Your task to perform on an android device: turn on translation in the chrome app Image 0: 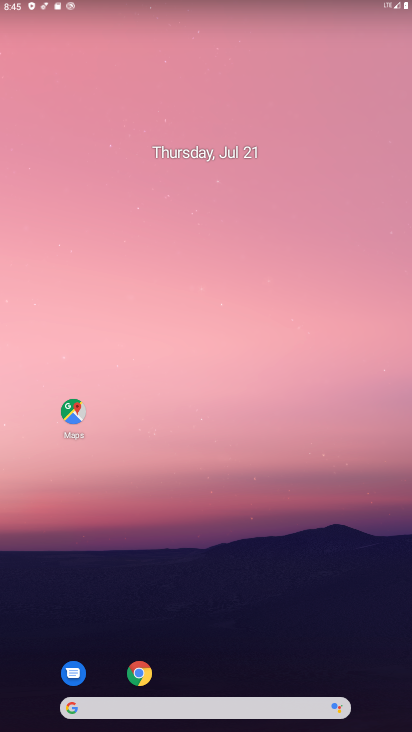
Step 0: click (153, 677)
Your task to perform on an android device: turn on translation in the chrome app Image 1: 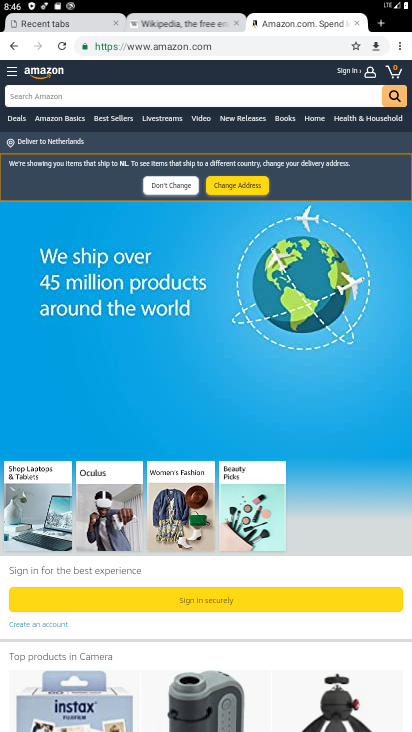
Step 1: click (400, 44)
Your task to perform on an android device: turn on translation in the chrome app Image 2: 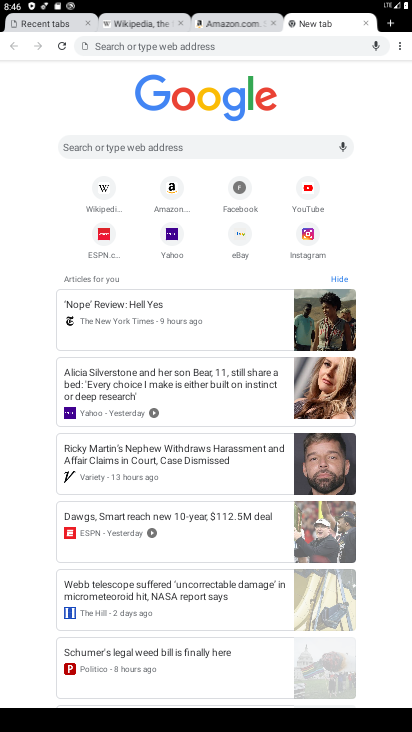
Step 2: click (396, 52)
Your task to perform on an android device: turn on translation in the chrome app Image 3: 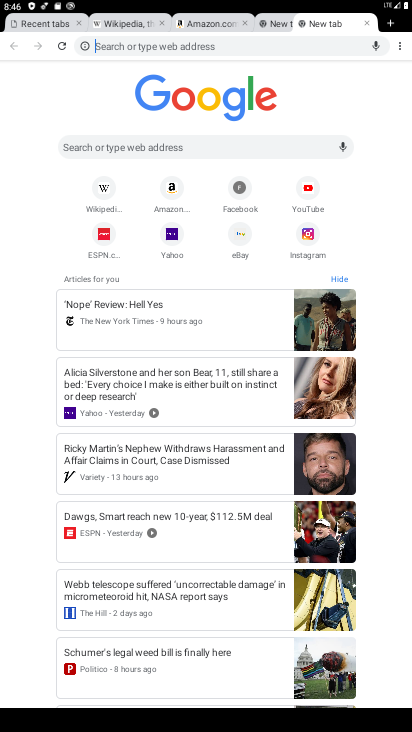
Step 3: click (402, 48)
Your task to perform on an android device: turn on translation in the chrome app Image 4: 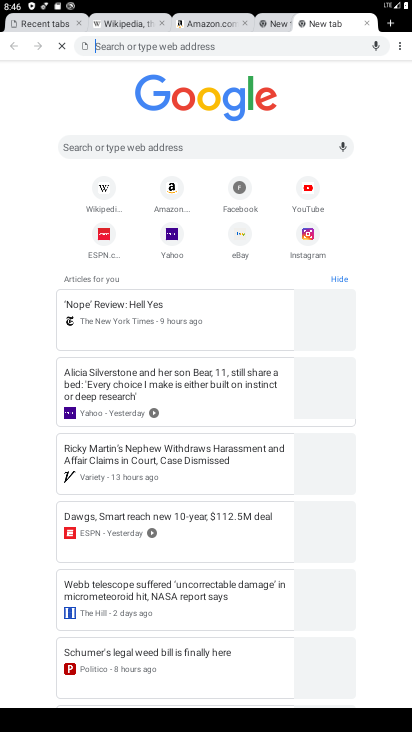
Step 4: click (402, 48)
Your task to perform on an android device: turn on translation in the chrome app Image 5: 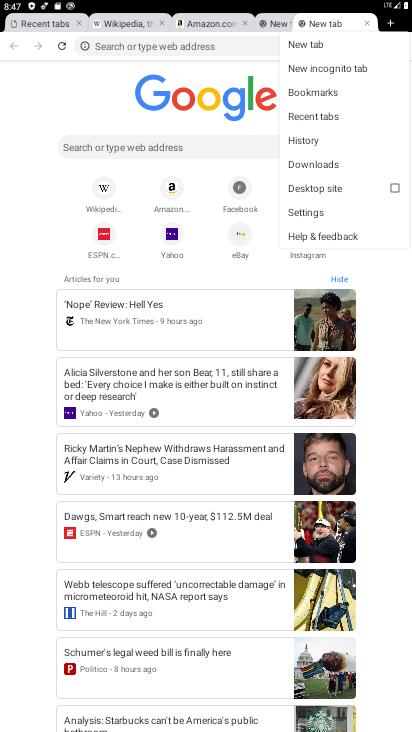
Step 5: click (293, 213)
Your task to perform on an android device: turn on translation in the chrome app Image 6: 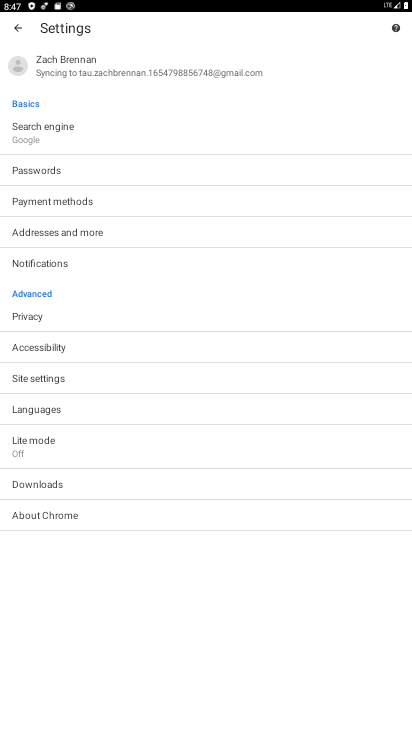
Step 6: click (83, 409)
Your task to perform on an android device: turn on translation in the chrome app Image 7: 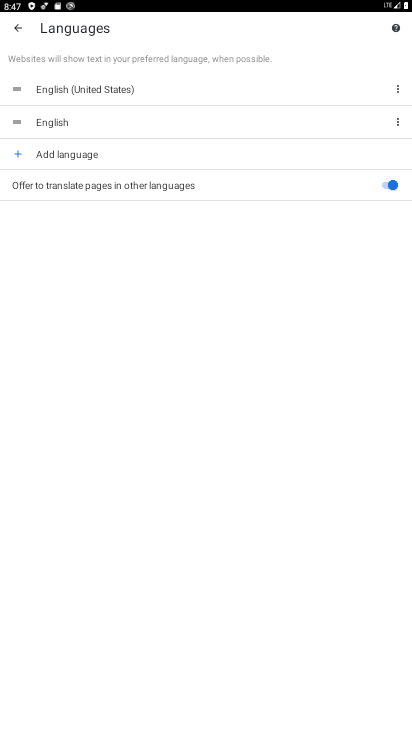
Step 7: task complete